Your task to perform on an android device: turn on airplane mode Image 0: 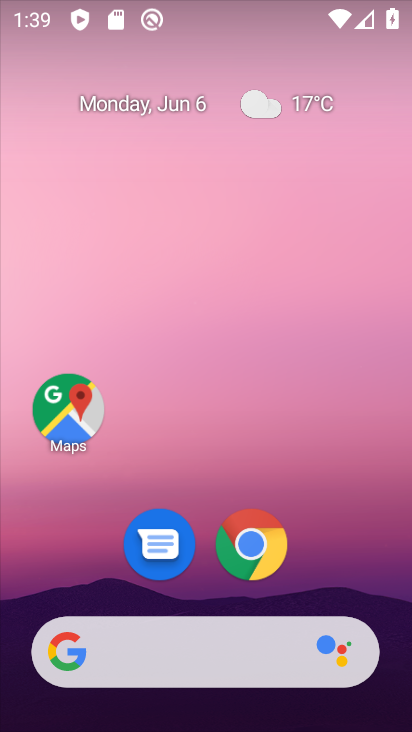
Step 0: drag from (328, 460) to (347, 185)
Your task to perform on an android device: turn on airplane mode Image 1: 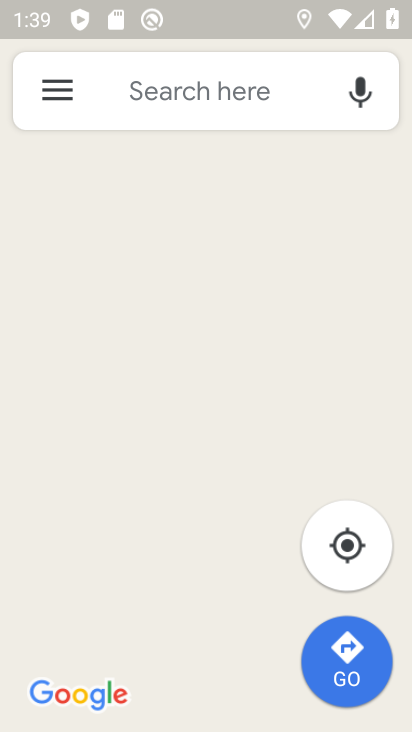
Step 1: press home button
Your task to perform on an android device: turn on airplane mode Image 2: 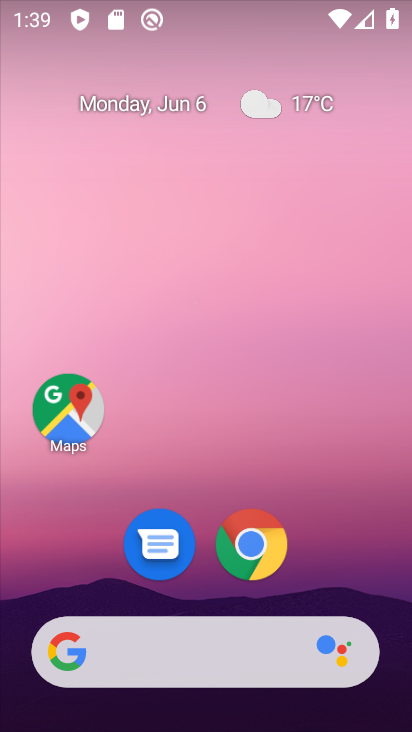
Step 2: drag from (330, 550) to (327, 161)
Your task to perform on an android device: turn on airplane mode Image 3: 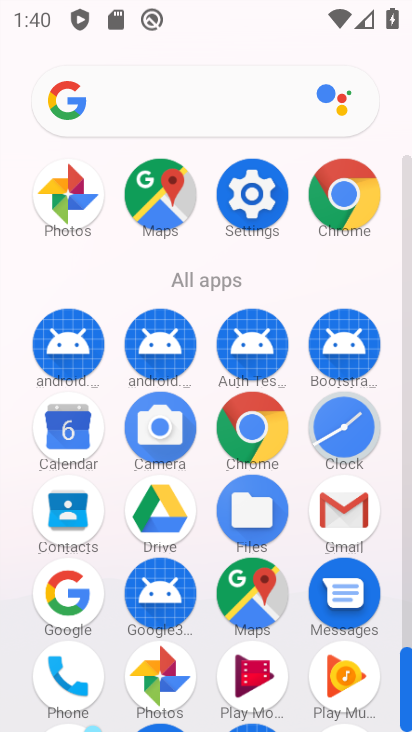
Step 3: drag from (294, 555) to (303, 236)
Your task to perform on an android device: turn on airplane mode Image 4: 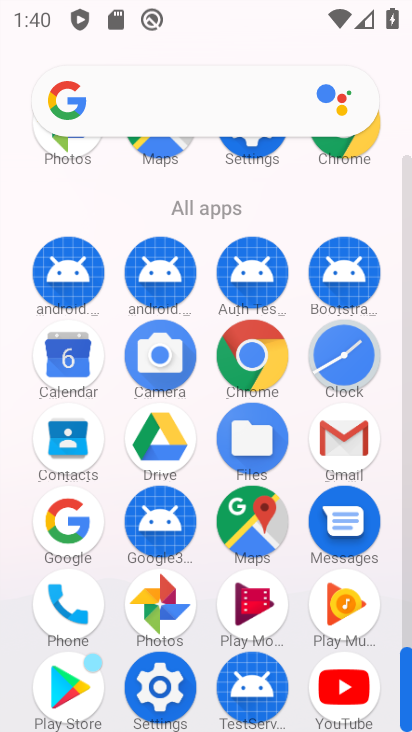
Step 4: click (179, 708)
Your task to perform on an android device: turn on airplane mode Image 5: 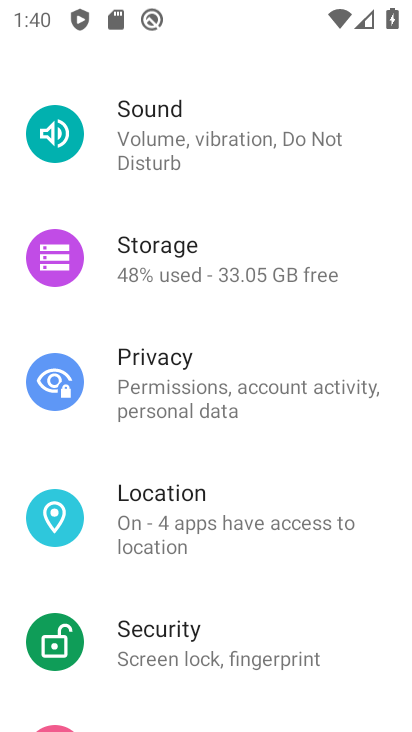
Step 5: drag from (250, 184) to (275, 576)
Your task to perform on an android device: turn on airplane mode Image 6: 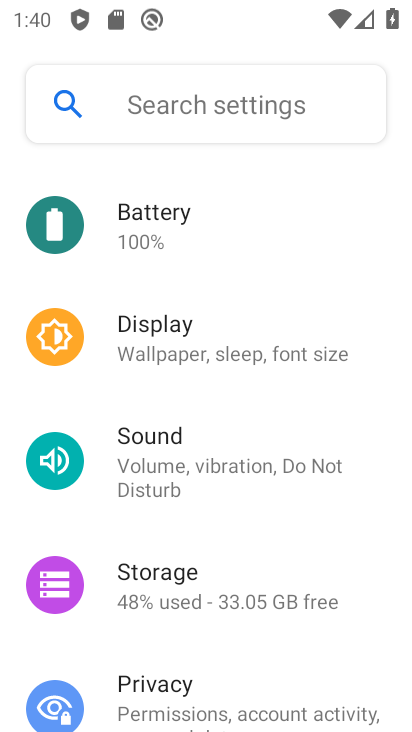
Step 6: drag from (319, 241) to (307, 664)
Your task to perform on an android device: turn on airplane mode Image 7: 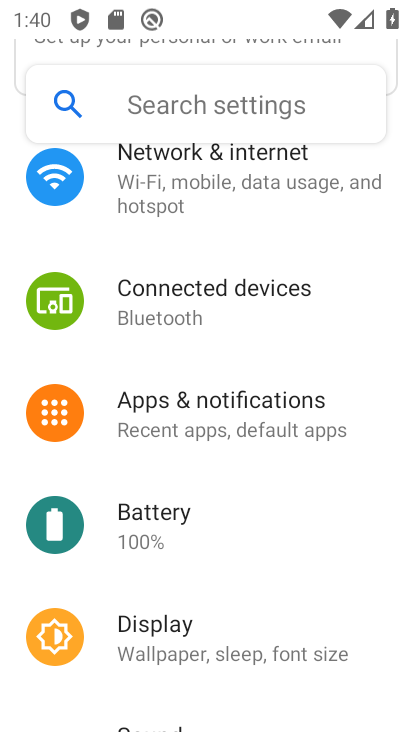
Step 7: drag from (280, 247) to (266, 618)
Your task to perform on an android device: turn on airplane mode Image 8: 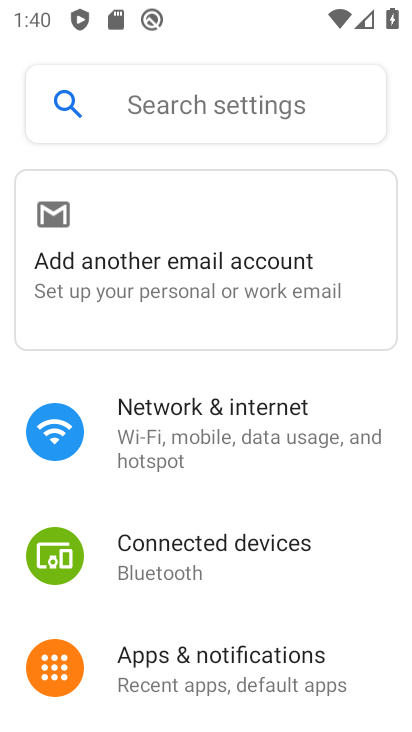
Step 8: click (236, 434)
Your task to perform on an android device: turn on airplane mode Image 9: 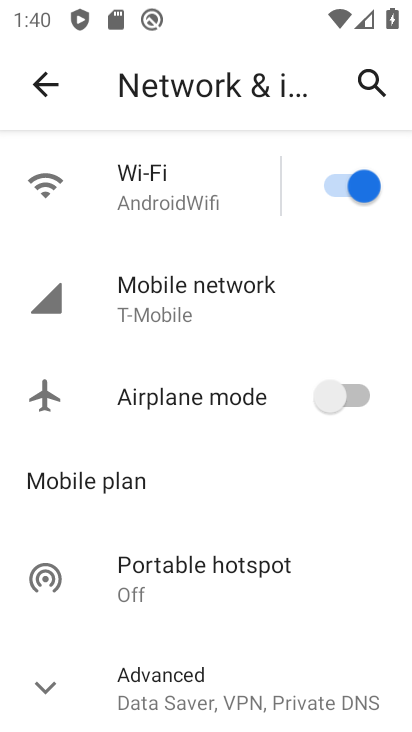
Step 9: click (370, 391)
Your task to perform on an android device: turn on airplane mode Image 10: 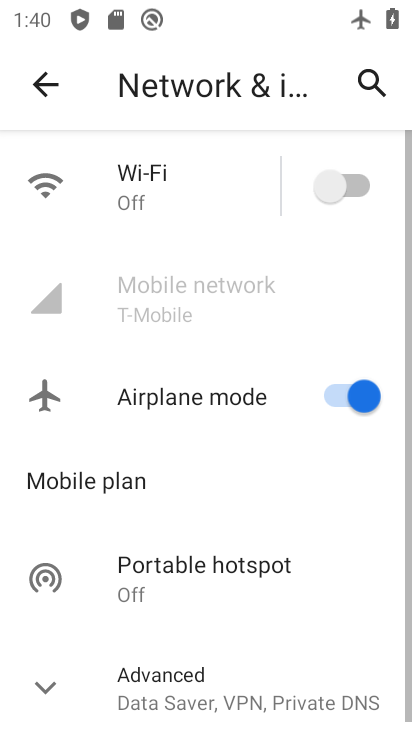
Step 10: task complete